Your task to perform on an android device: toggle airplane mode Image 0: 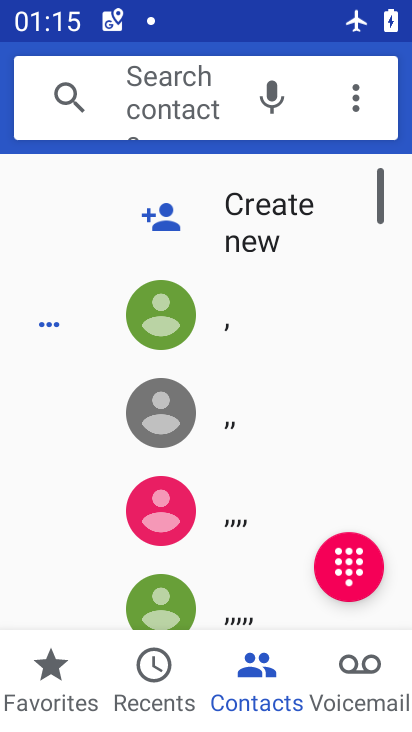
Step 0: drag from (298, 575) to (289, 296)
Your task to perform on an android device: toggle airplane mode Image 1: 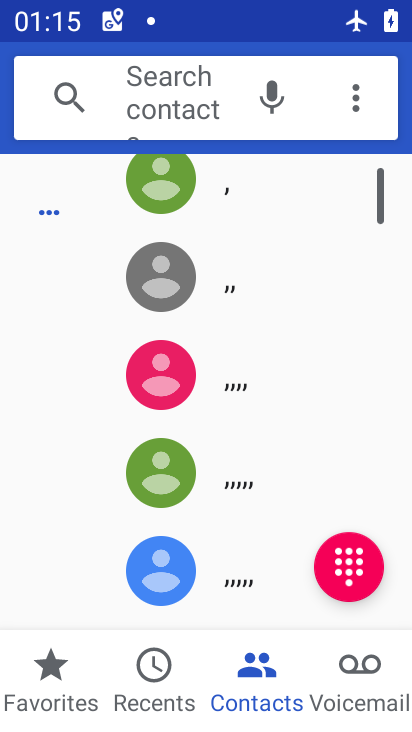
Step 1: press home button
Your task to perform on an android device: toggle airplane mode Image 2: 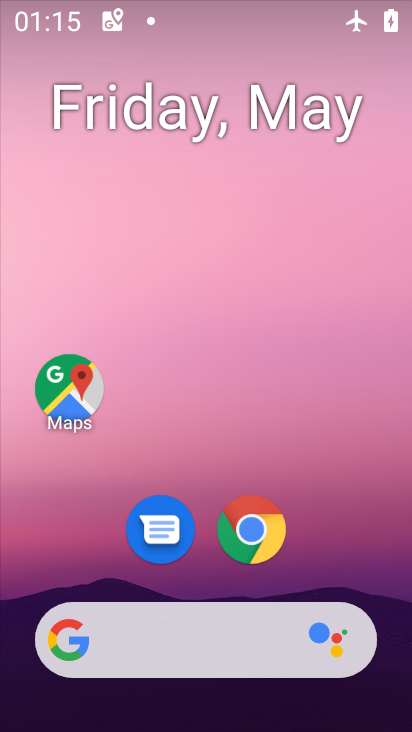
Step 2: drag from (304, 538) to (295, 102)
Your task to perform on an android device: toggle airplane mode Image 3: 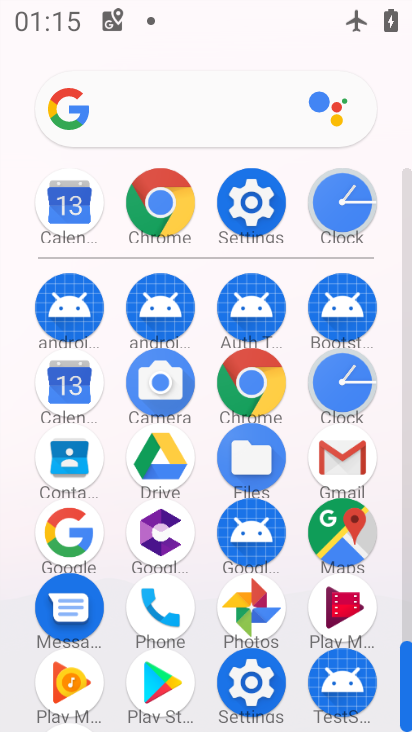
Step 3: click (249, 182)
Your task to perform on an android device: toggle airplane mode Image 4: 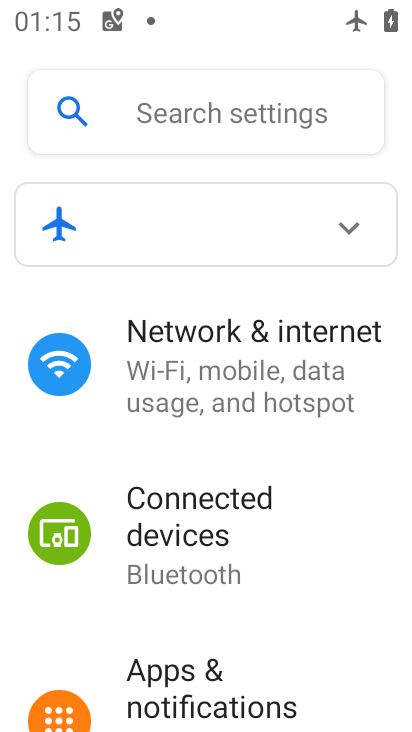
Step 4: click (222, 388)
Your task to perform on an android device: toggle airplane mode Image 5: 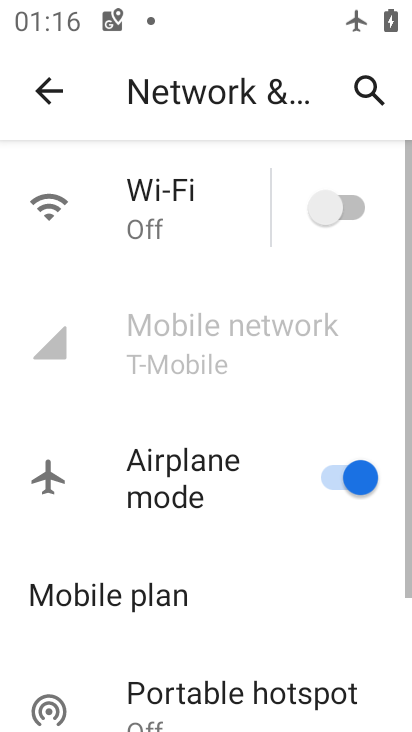
Step 5: click (351, 458)
Your task to perform on an android device: toggle airplane mode Image 6: 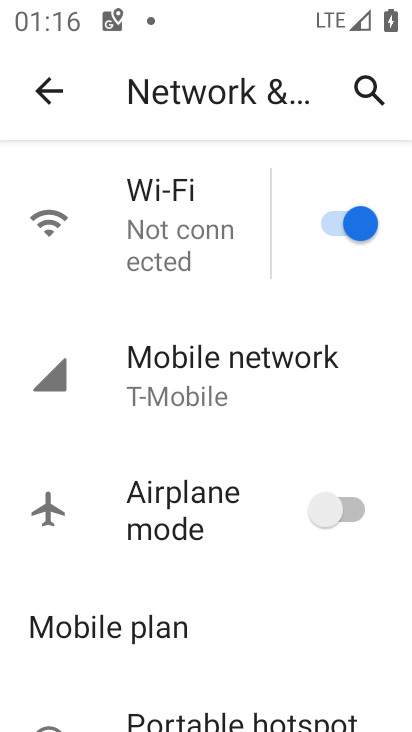
Step 6: task complete